Your task to perform on an android device: install app "Adobe Acrobat Reader" Image 0: 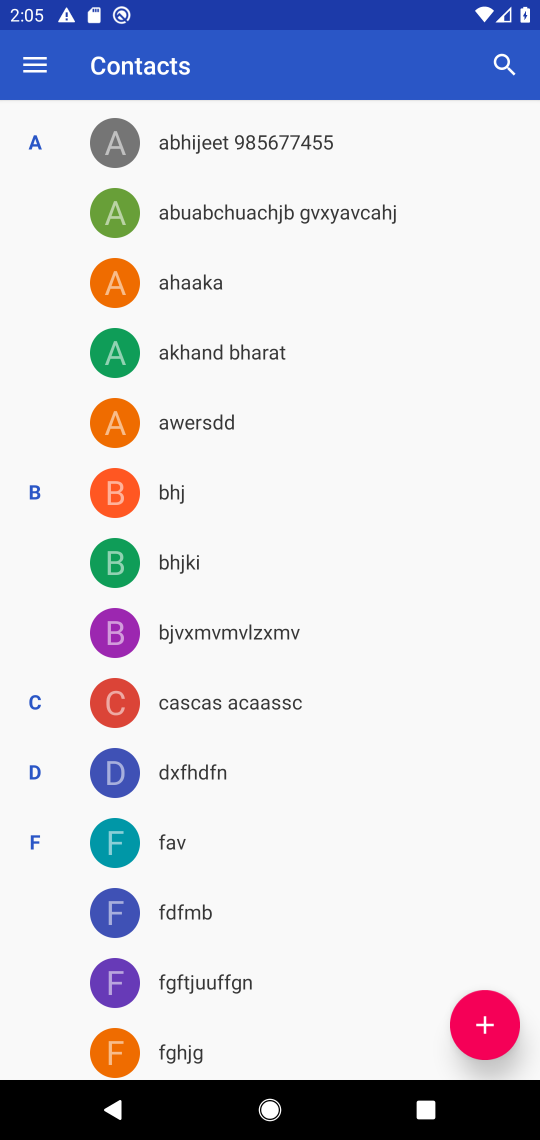
Step 0: press home button
Your task to perform on an android device: install app "Adobe Acrobat Reader" Image 1: 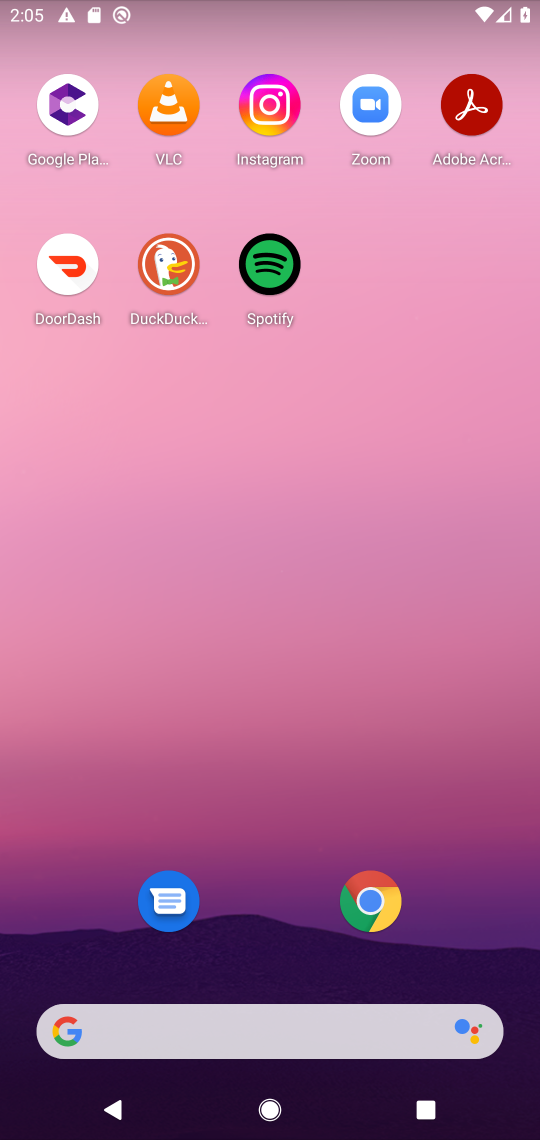
Step 1: drag from (479, 948) to (432, 271)
Your task to perform on an android device: install app "Adobe Acrobat Reader" Image 2: 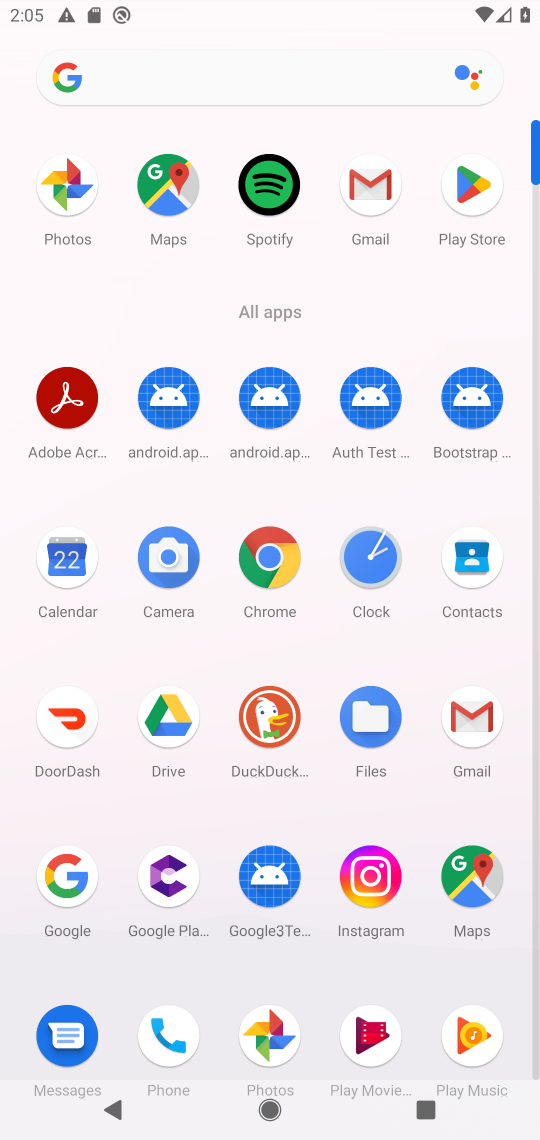
Step 2: drag from (318, 968) to (331, 480)
Your task to perform on an android device: install app "Adobe Acrobat Reader" Image 3: 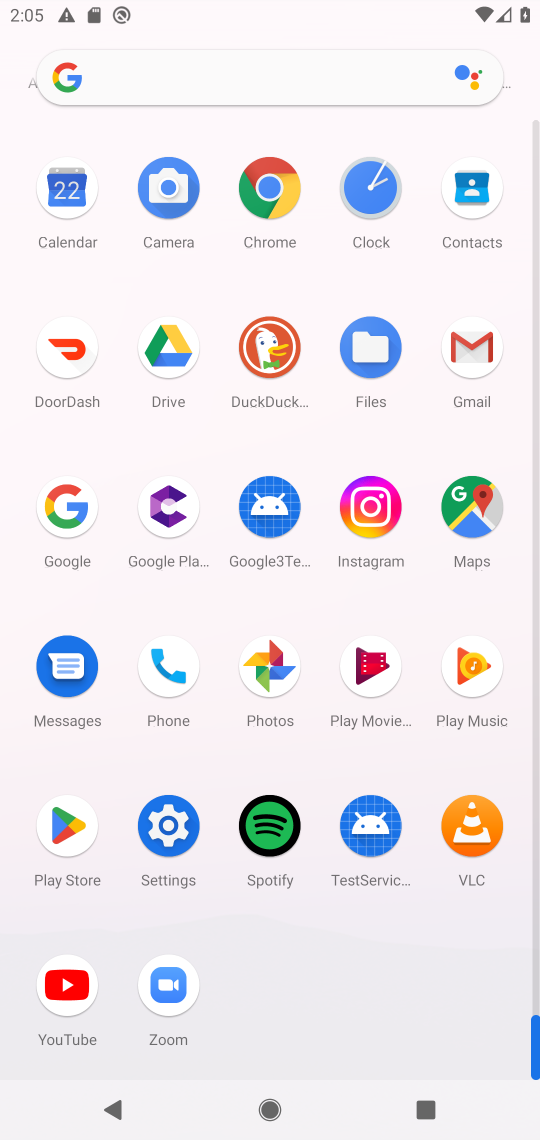
Step 3: click (70, 829)
Your task to perform on an android device: install app "Adobe Acrobat Reader" Image 4: 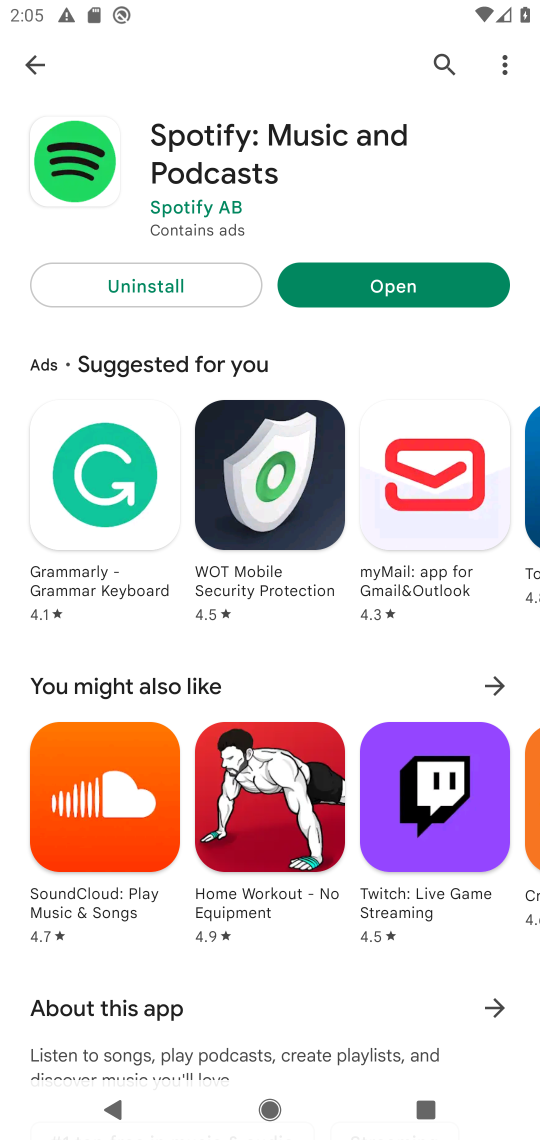
Step 4: click (448, 51)
Your task to perform on an android device: install app "Adobe Acrobat Reader" Image 5: 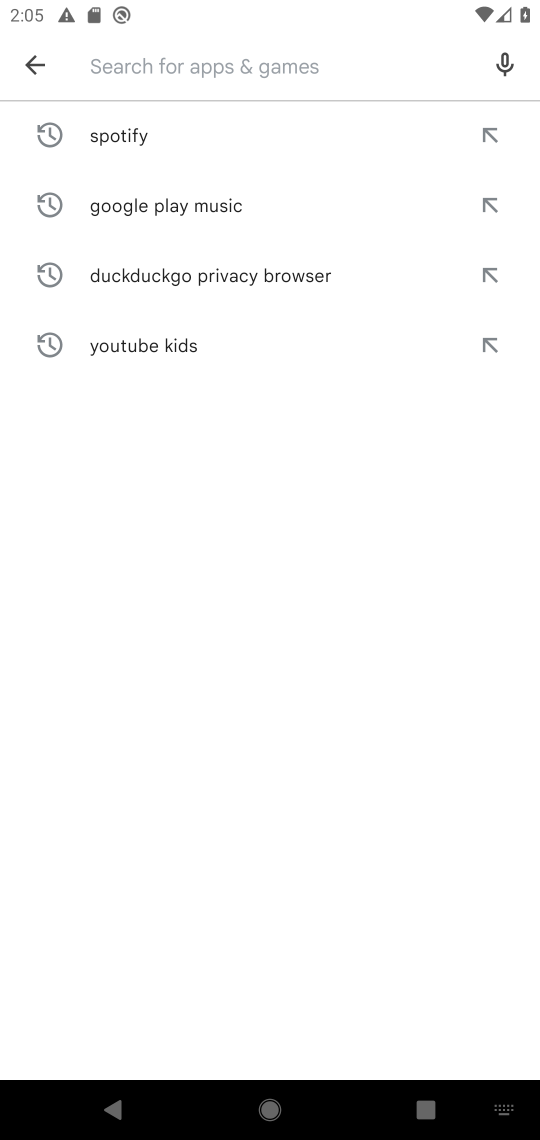
Step 5: type "adobe acrobat reader"
Your task to perform on an android device: install app "Adobe Acrobat Reader" Image 6: 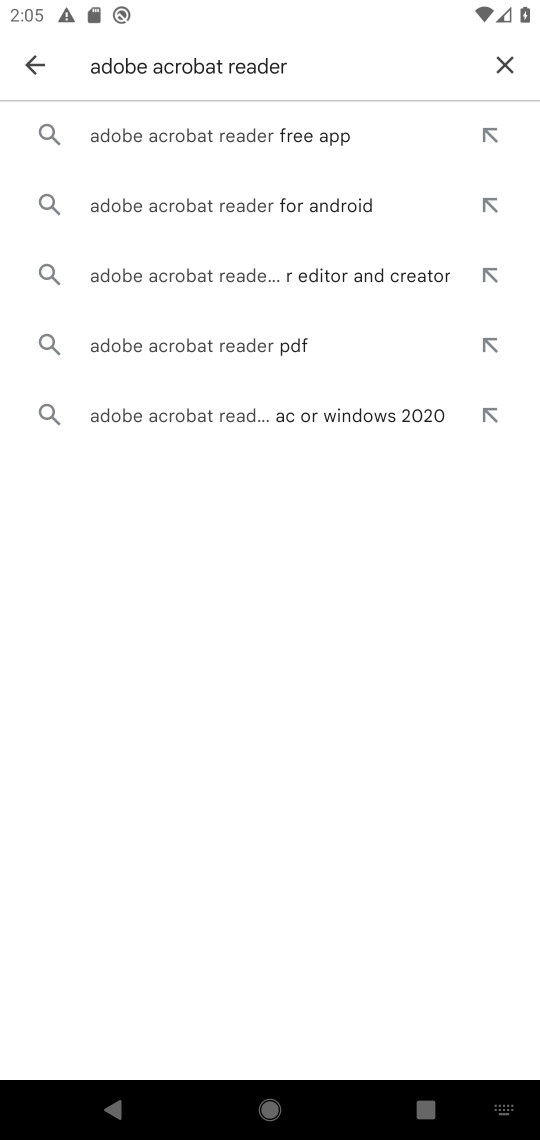
Step 6: click (209, 136)
Your task to perform on an android device: install app "Adobe Acrobat Reader" Image 7: 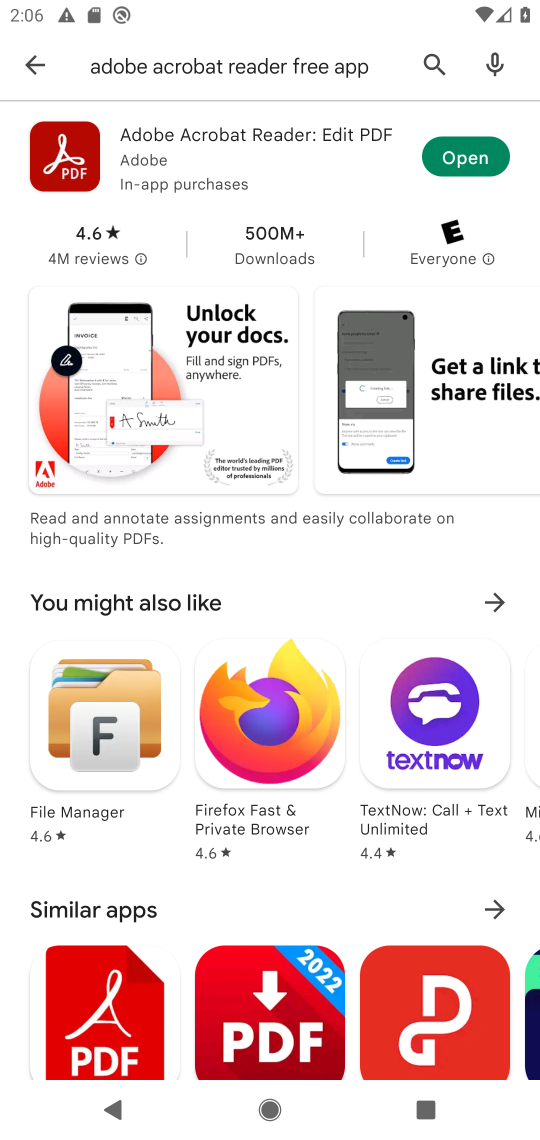
Step 7: click (147, 133)
Your task to perform on an android device: install app "Adobe Acrobat Reader" Image 8: 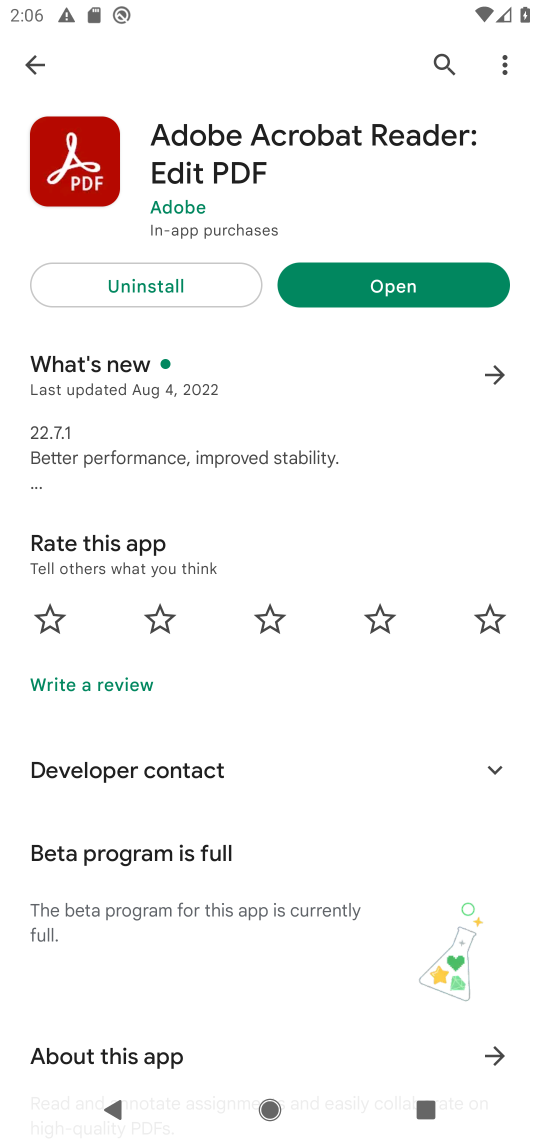
Step 8: click (371, 272)
Your task to perform on an android device: install app "Adobe Acrobat Reader" Image 9: 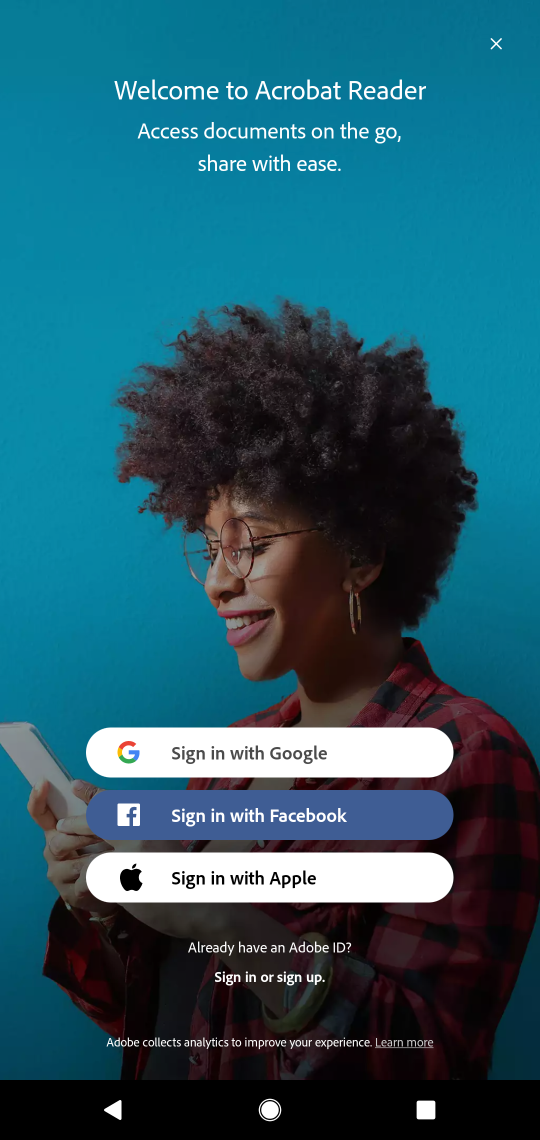
Step 9: task complete